Your task to perform on an android device: Go to Wikipedia Image 0: 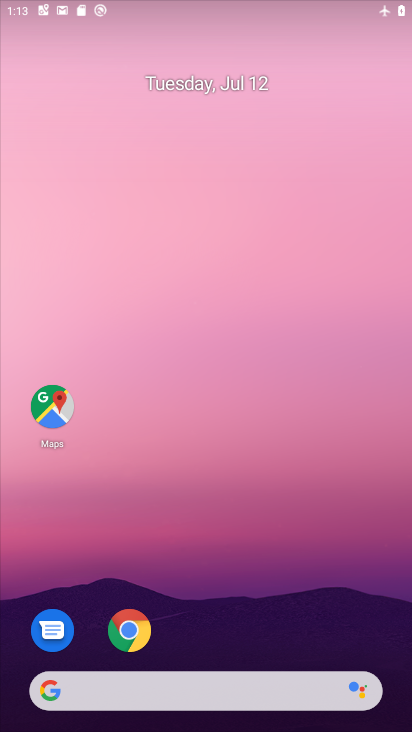
Step 0: drag from (265, 605) to (264, 197)
Your task to perform on an android device: Go to Wikipedia Image 1: 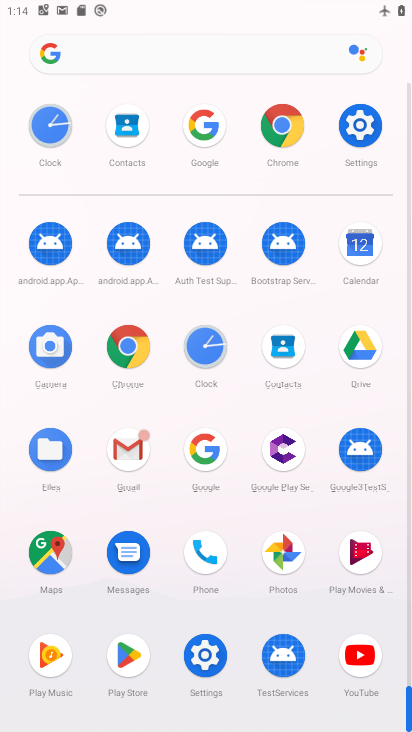
Step 1: click (136, 359)
Your task to perform on an android device: Go to Wikipedia Image 2: 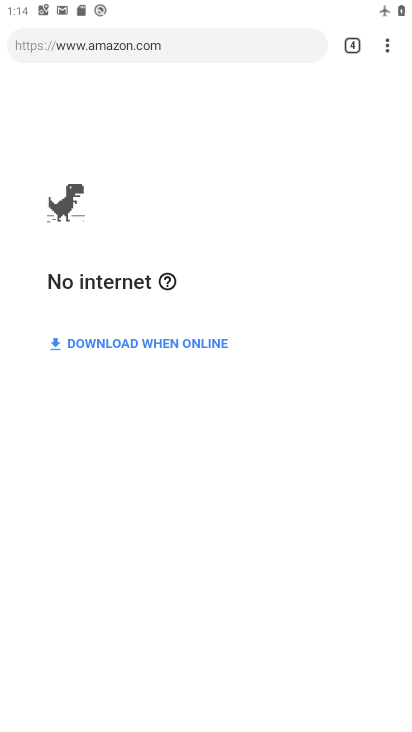
Step 2: click (259, 39)
Your task to perform on an android device: Go to Wikipedia Image 3: 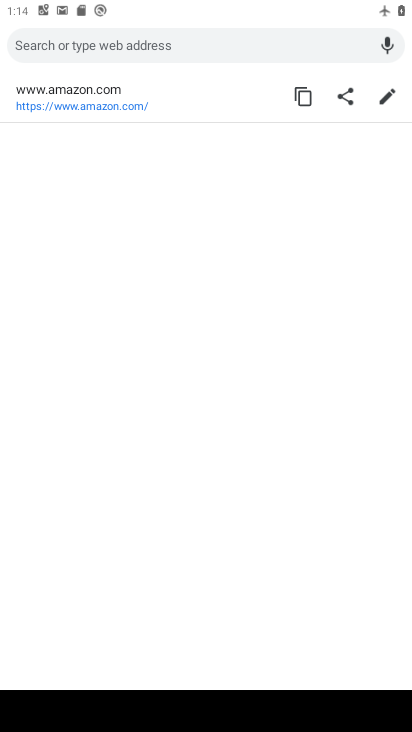
Step 3: type "wikipedia"
Your task to perform on an android device: Go to Wikipedia Image 4: 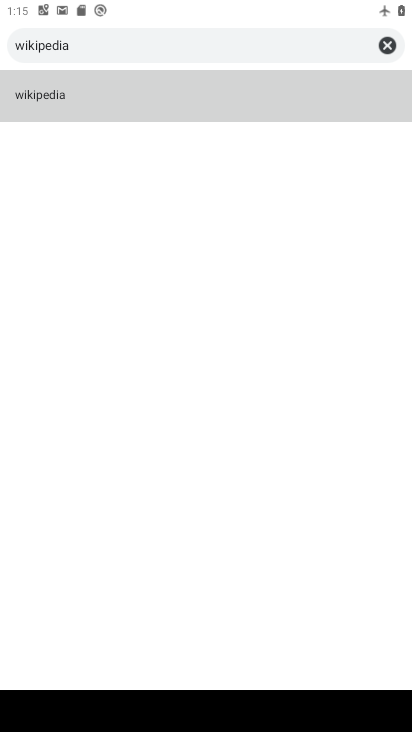
Step 4: task complete